Your task to perform on an android device: Set the phone to "Do not disturb". Image 0: 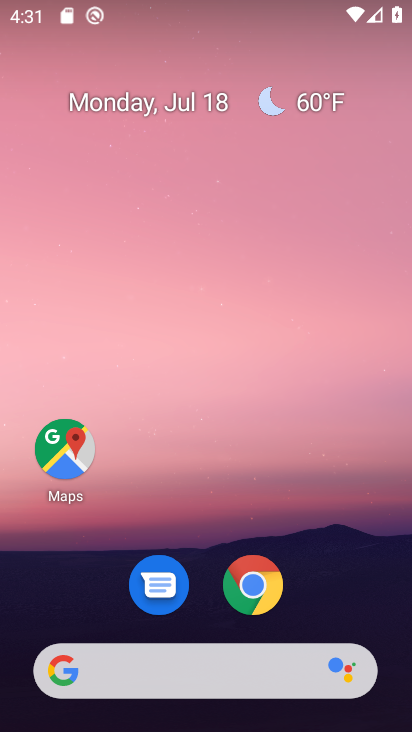
Step 0: drag from (340, 594) to (356, 0)
Your task to perform on an android device: Set the phone to "Do not disturb". Image 1: 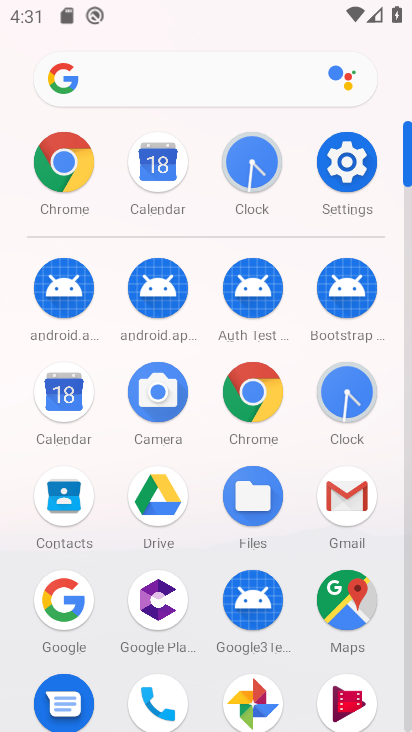
Step 1: click (335, 156)
Your task to perform on an android device: Set the phone to "Do not disturb". Image 2: 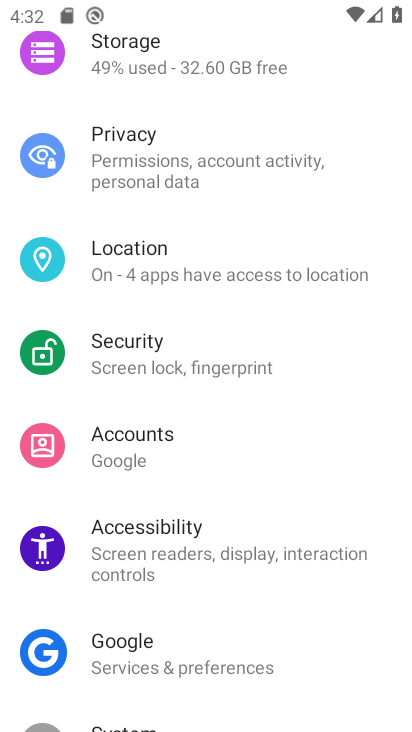
Step 2: drag from (263, 202) to (244, 599)
Your task to perform on an android device: Set the phone to "Do not disturb". Image 3: 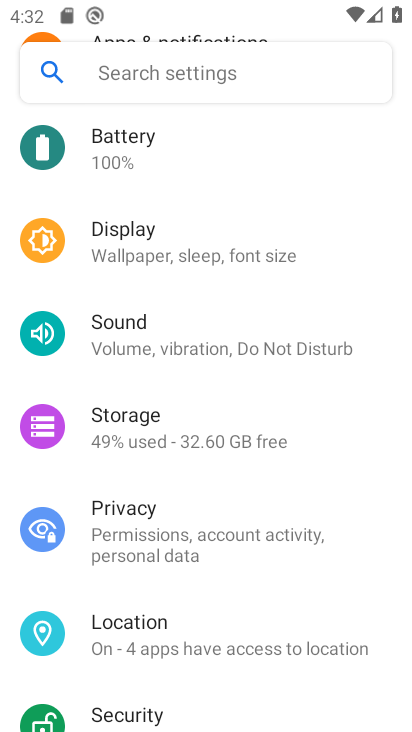
Step 3: click (257, 347)
Your task to perform on an android device: Set the phone to "Do not disturb". Image 4: 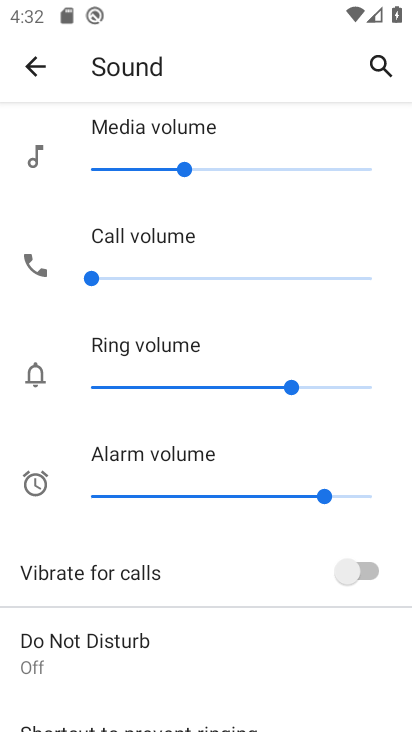
Step 4: click (121, 643)
Your task to perform on an android device: Set the phone to "Do not disturb". Image 5: 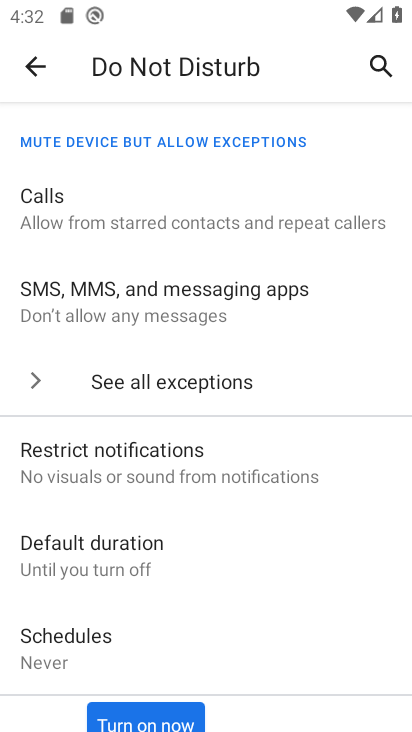
Step 5: click (165, 705)
Your task to perform on an android device: Set the phone to "Do not disturb". Image 6: 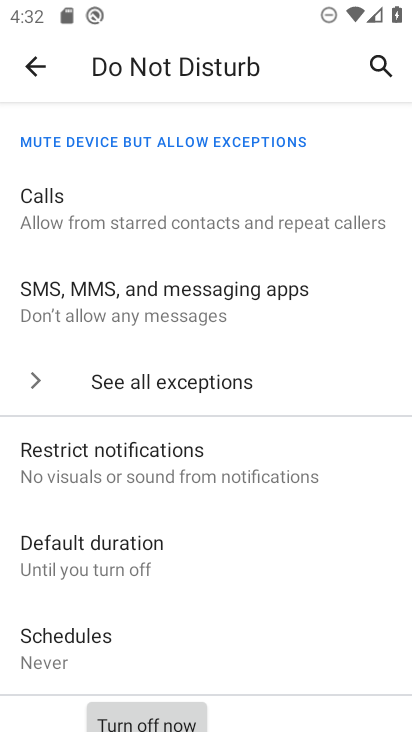
Step 6: task complete